Your task to perform on an android device: Search for vintage wall art on Etsy. Image 0: 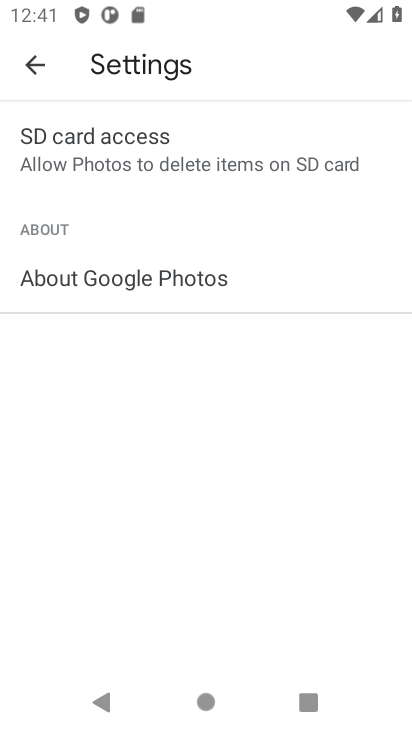
Step 0: press home button
Your task to perform on an android device: Search for vintage wall art on Etsy. Image 1: 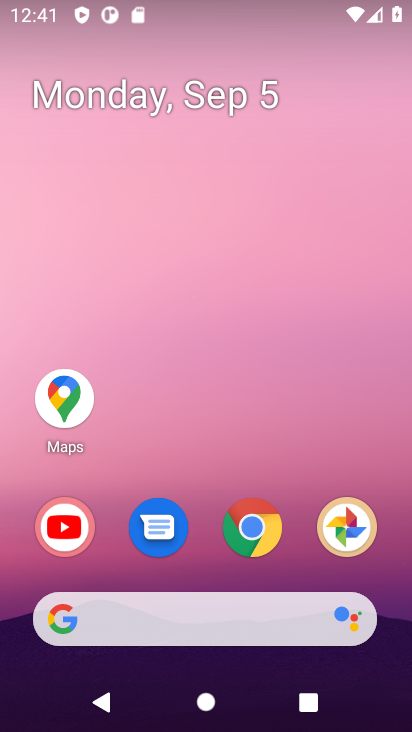
Step 1: click (242, 526)
Your task to perform on an android device: Search for vintage wall art on Etsy. Image 2: 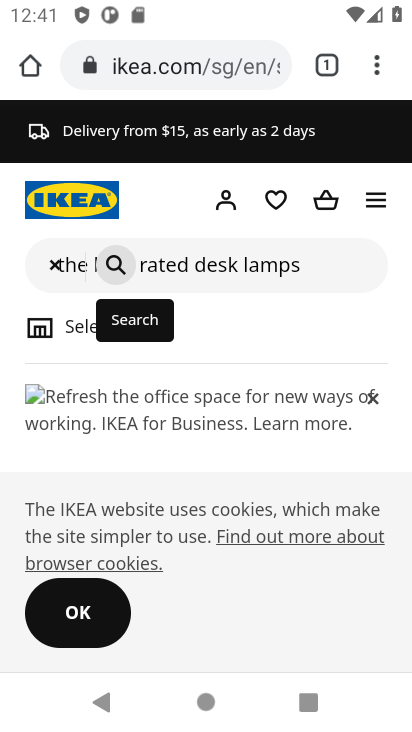
Step 2: click (200, 68)
Your task to perform on an android device: Search for vintage wall art on Etsy. Image 3: 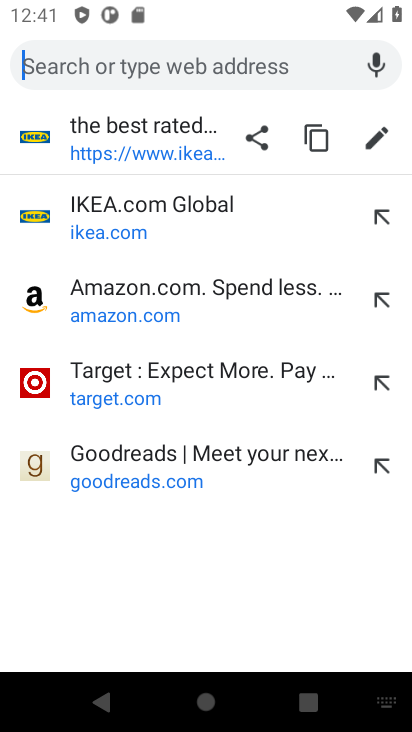
Step 3: type "Etsy"
Your task to perform on an android device: Search for vintage wall art on Etsy. Image 4: 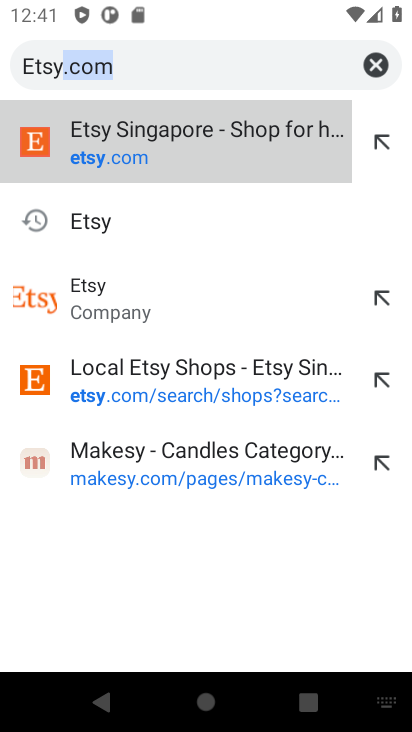
Step 4: click (160, 151)
Your task to perform on an android device: Search for vintage wall art on Etsy. Image 5: 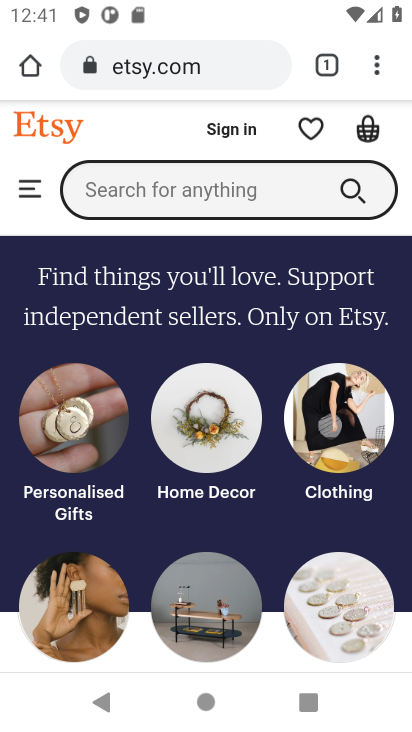
Step 5: click (222, 186)
Your task to perform on an android device: Search for vintage wall art on Etsy. Image 6: 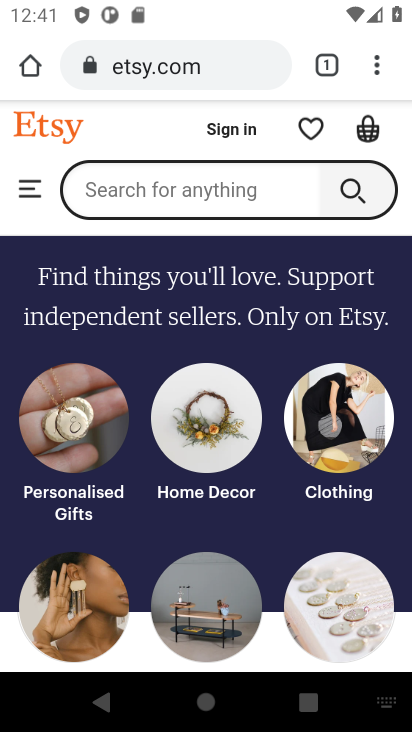
Step 6: type "vintage wall art"
Your task to perform on an android device: Search for vintage wall art on Etsy. Image 7: 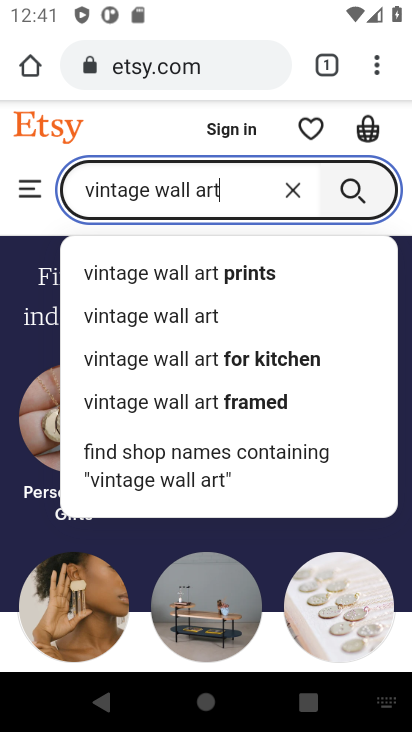
Step 7: click (346, 188)
Your task to perform on an android device: Search for vintage wall art on Etsy. Image 8: 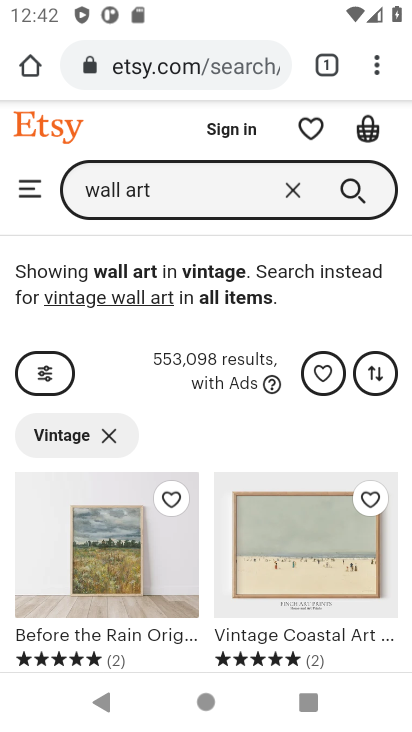
Step 8: task complete